Your task to perform on an android device: allow notifications from all sites in the chrome app Image 0: 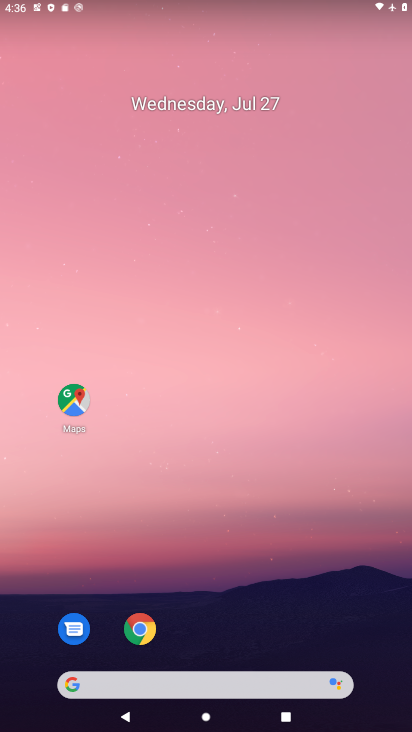
Step 0: click (134, 635)
Your task to perform on an android device: allow notifications from all sites in the chrome app Image 1: 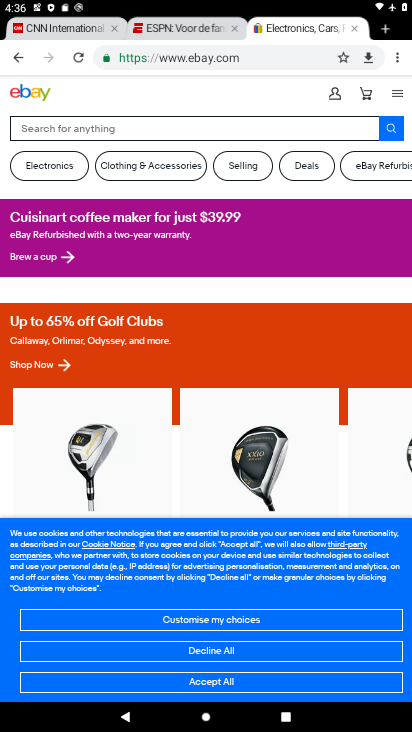
Step 1: click (396, 55)
Your task to perform on an android device: allow notifications from all sites in the chrome app Image 2: 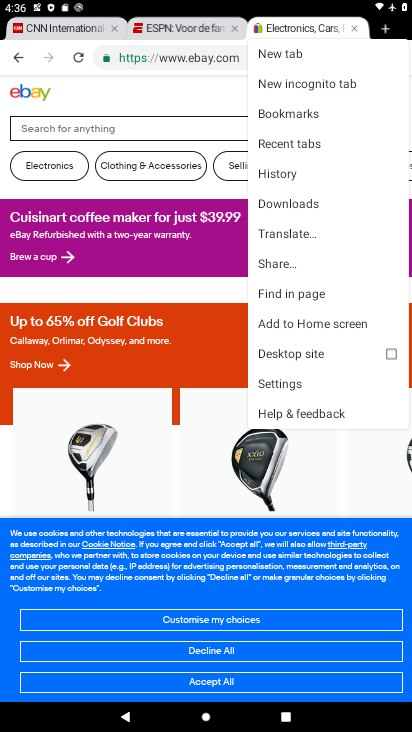
Step 2: click (257, 386)
Your task to perform on an android device: allow notifications from all sites in the chrome app Image 3: 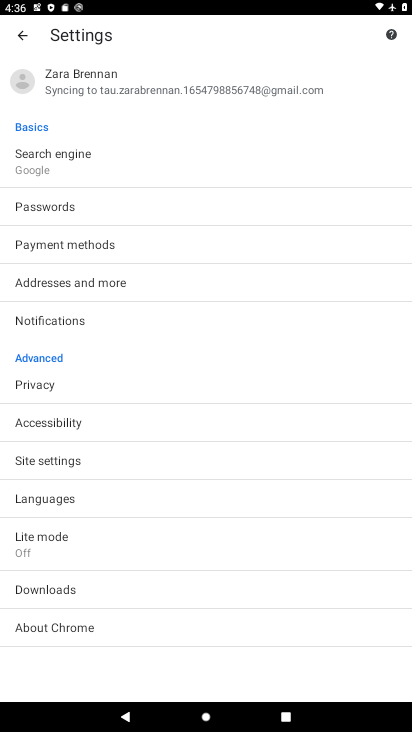
Step 3: click (50, 472)
Your task to perform on an android device: allow notifications from all sites in the chrome app Image 4: 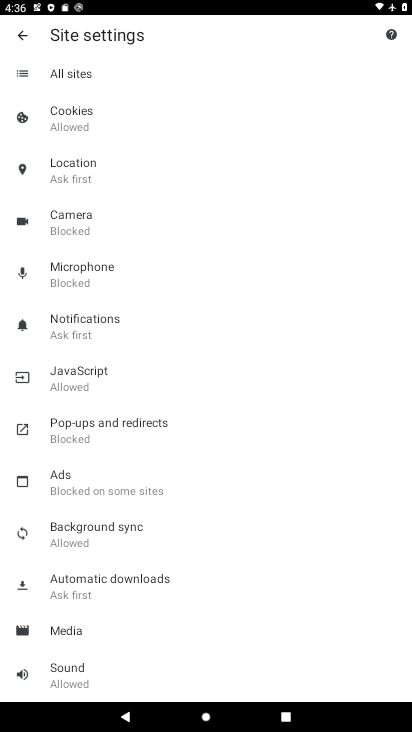
Step 4: click (72, 312)
Your task to perform on an android device: allow notifications from all sites in the chrome app Image 5: 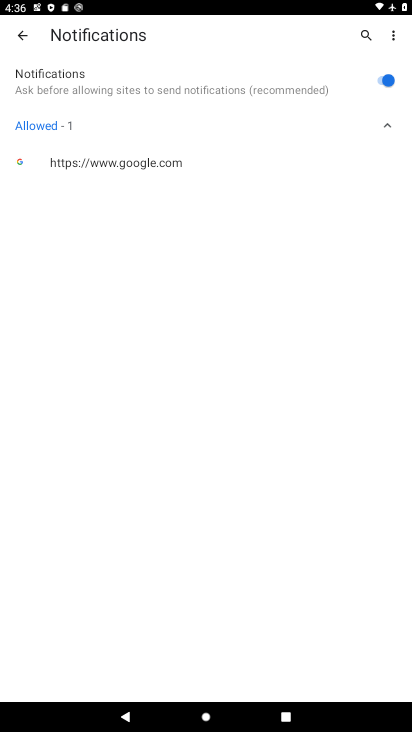
Step 5: task complete